Your task to perform on an android device: check android version Image 0: 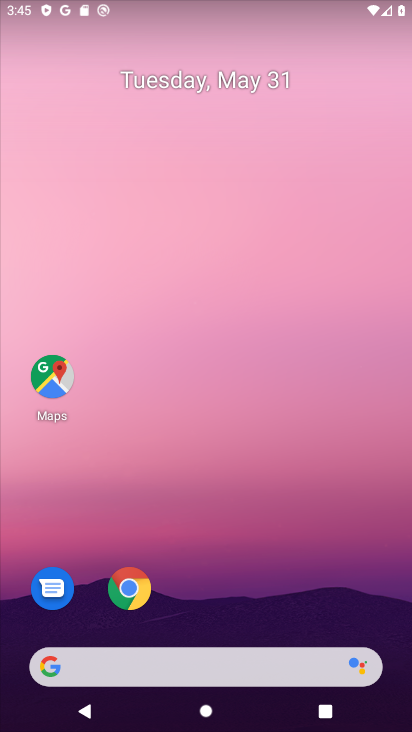
Step 0: drag from (230, 616) to (223, 108)
Your task to perform on an android device: check android version Image 1: 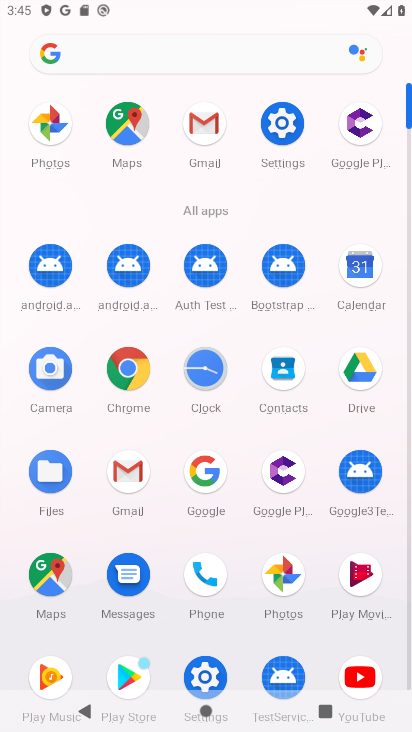
Step 1: click (286, 121)
Your task to perform on an android device: check android version Image 2: 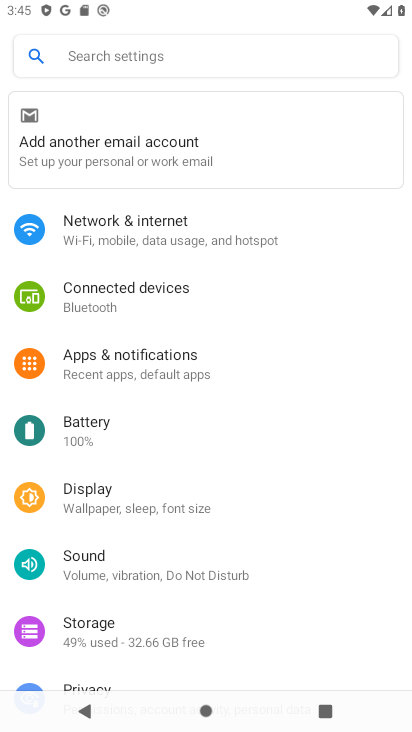
Step 2: drag from (135, 657) to (173, 166)
Your task to perform on an android device: check android version Image 3: 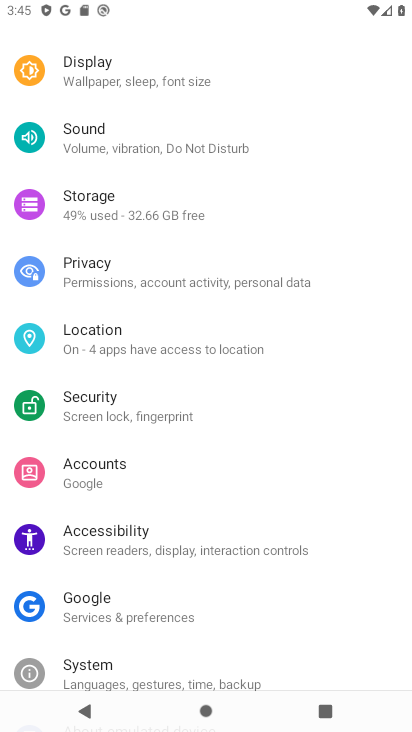
Step 3: drag from (99, 681) to (209, 104)
Your task to perform on an android device: check android version Image 4: 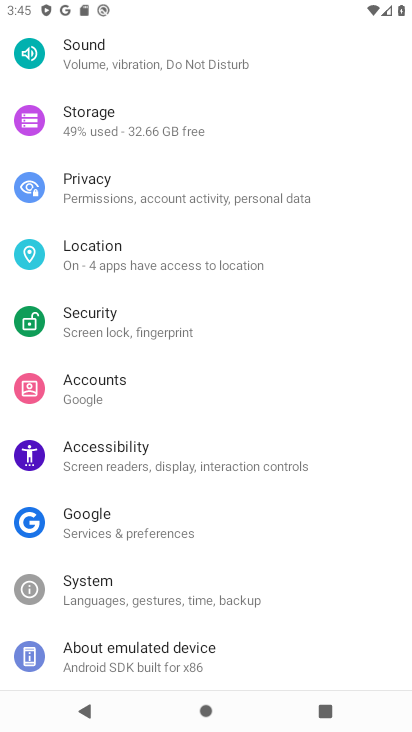
Step 4: click (109, 670)
Your task to perform on an android device: check android version Image 5: 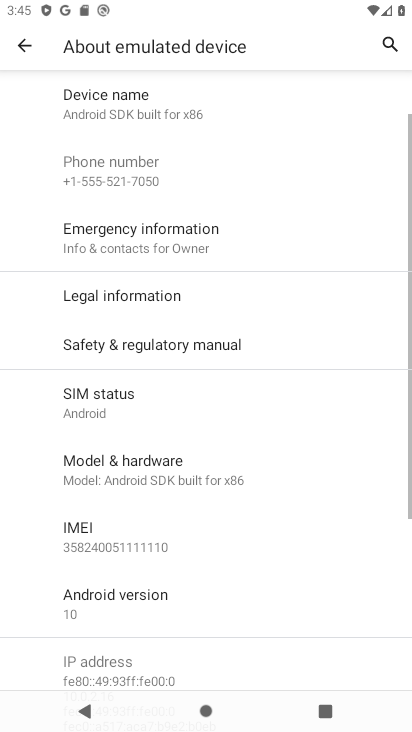
Step 5: click (105, 614)
Your task to perform on an android device: check android version Image 6: 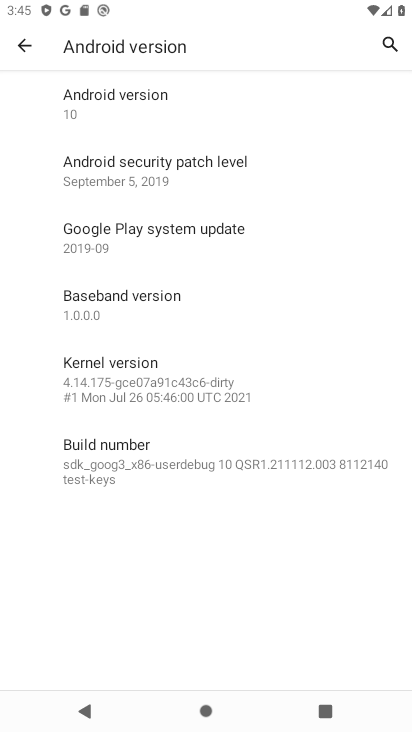
Step 6: task complete